Your task to perform on an android device: Go to notification settings Image 0: 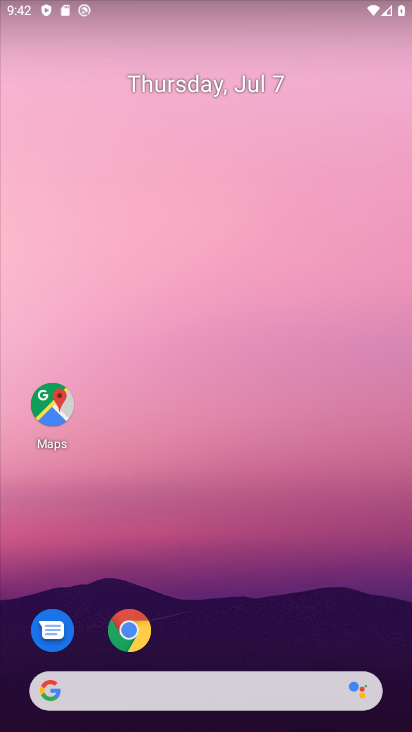
Step 0: press home button
Your task to perform on an android device: Go to notification settings Image 1: 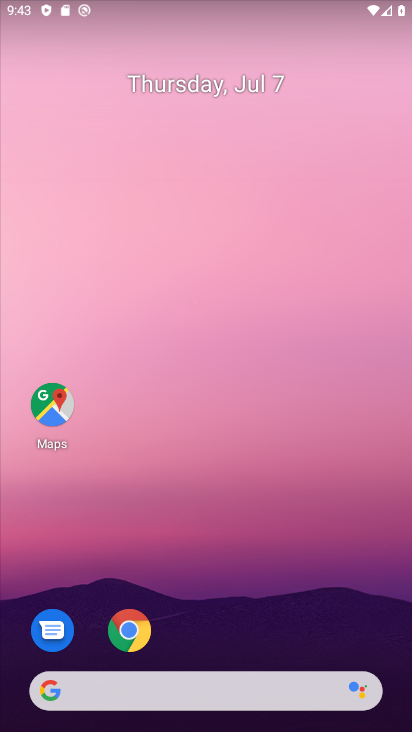
Step 1: drag from (224, 640) to (256, 158)
Your task to perform on an android device: Go to notification settings Image 2: 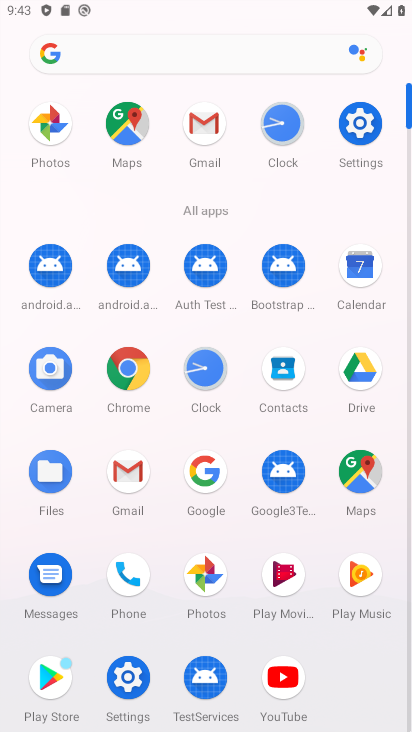
Step 2: click (354, 128)
Your task to perform on an android device: Go to notification settings Image 3: 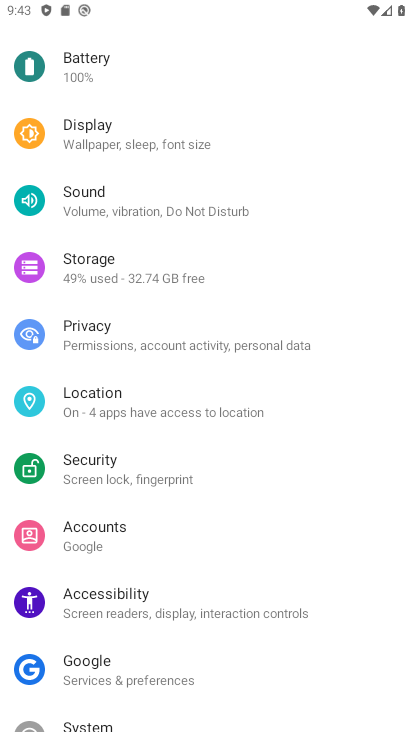
Step 3: drag from (118, 65) to (161, 535)
Your task to perform on an android device: Go to notification settings Image 4: 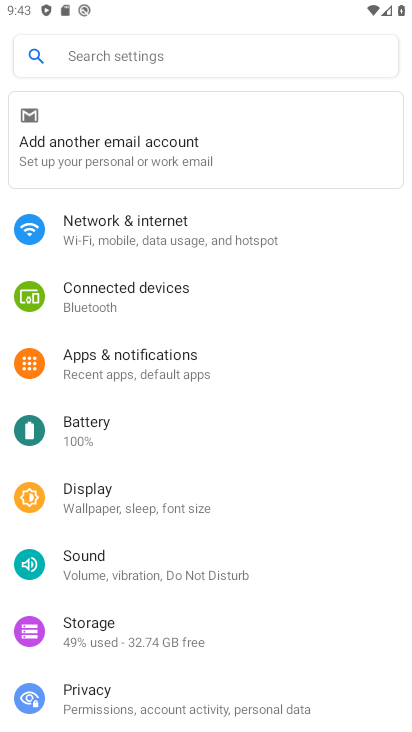
Step 4: click (152, 372)
Your task to perform on an android device: Go to notification settings Image 5: 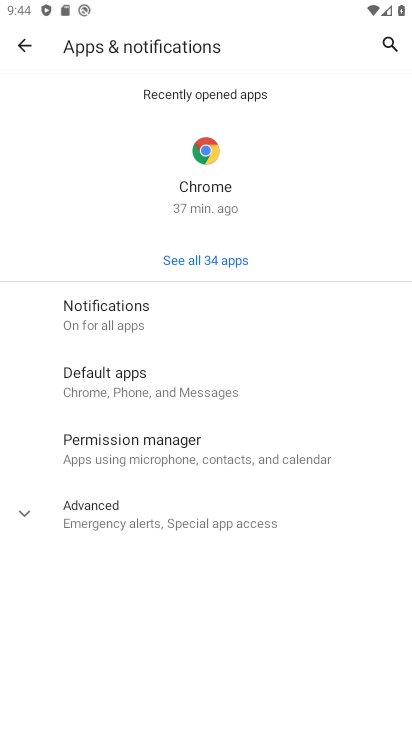
Step 5: click (92, 324)
Your task to perform on an android device: Go to notification settings Image 6: 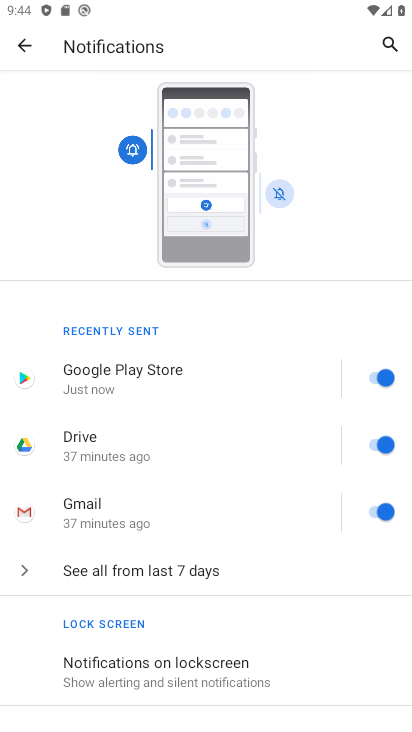
Step 6: drag from (148, 631) to (176, 324)
Your task to perform on an android device: Go to notification settings Image 7: 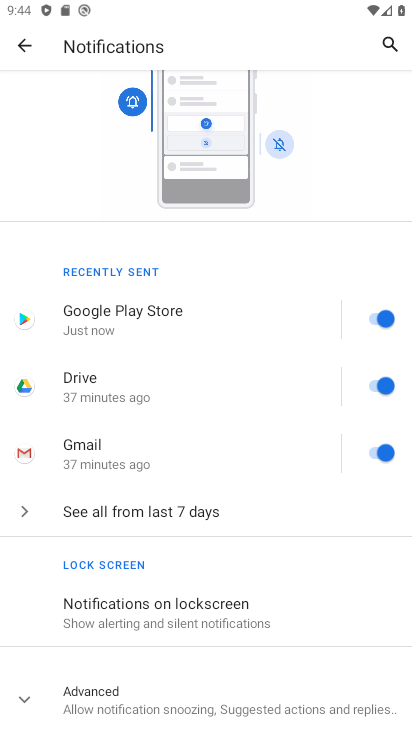
Step 7: click (56, 700)
Your task to perform on an android device: Go to notification settings Image 8: 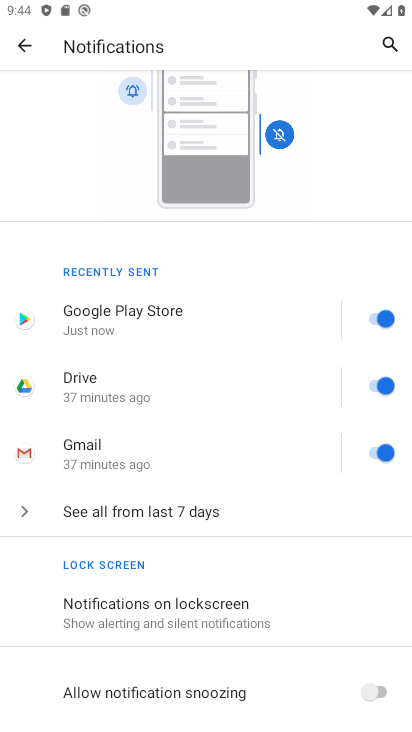
Step 8: task complete